Your task to perform on an android device: remove spam from my inbox in the gmail app Image 0: 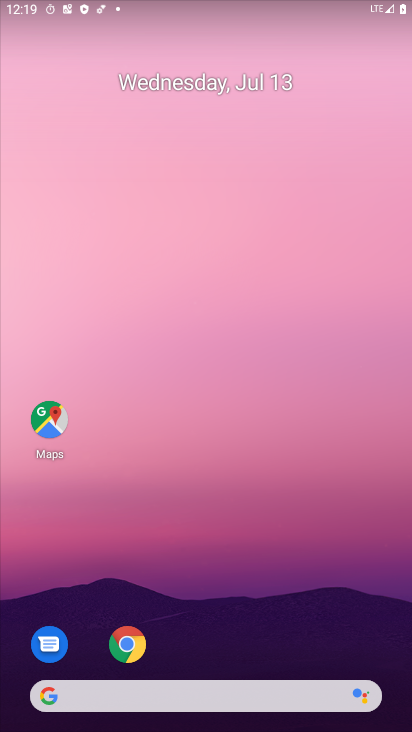
Step 0: drag from (226, 634) to (324, 80)
Your task to perform on an android device: remove spam from my inbox in the gmail app Image 1: 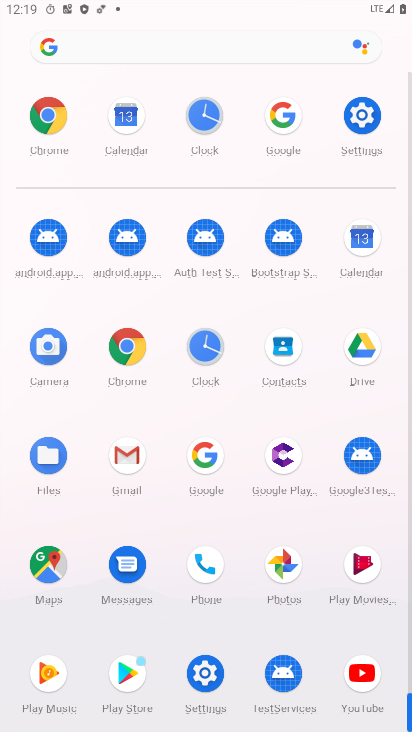
Step 1: click (123, 453)
Your task to perform on an android device: remove spam from my inbox in the gmail app Image 2: 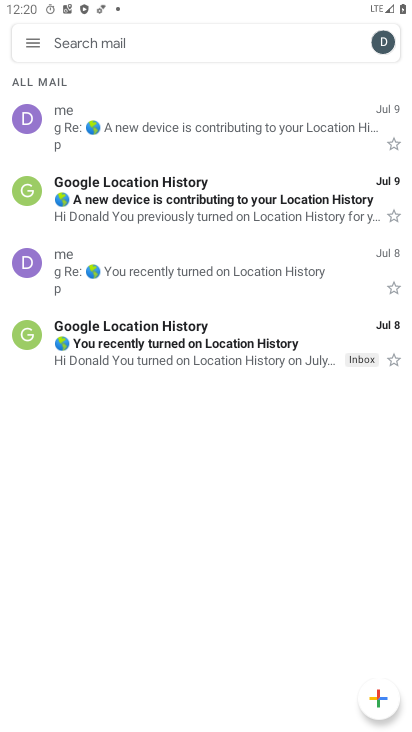
Step 2: click (29, 40)
Your task to perform on an android device: remove spam from my inbox in the gmail app Image 3: 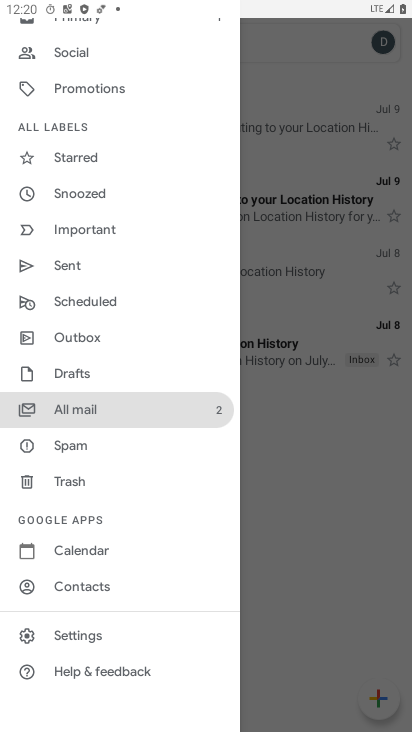
Step 3: drag from (99, 104) to (139, 506)
Your task to perform on an android device: remove spam from my inbox in the gmail app Image 4: 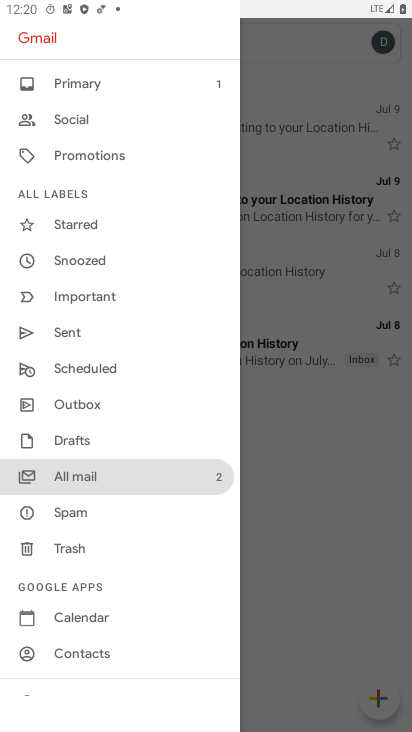
Step 4: click (125, 80)
Your task to perform on an android device: remove spam from my inbox in the gmail app Image 5: 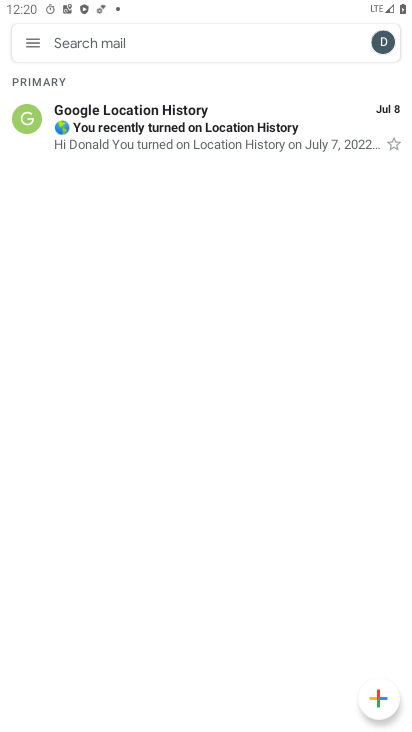
Step 5: task complete